Your task to perform on an android device: Play the new Selena Gomez video on YouTube Image 0: 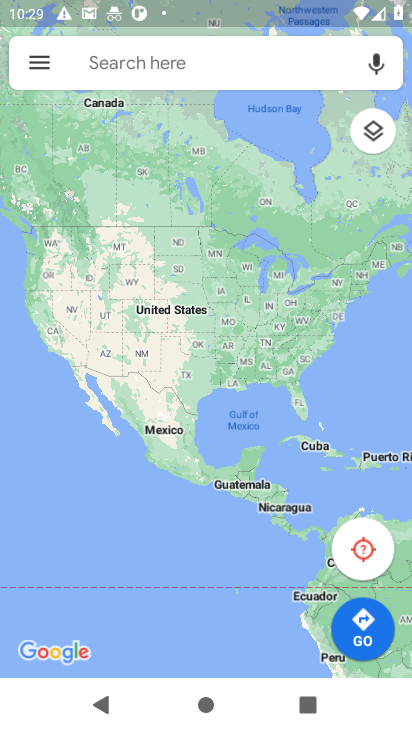
Step 0: press home button
Your task to perform on an android device: Play the new Selena Gomez video on YouTube Image 1: 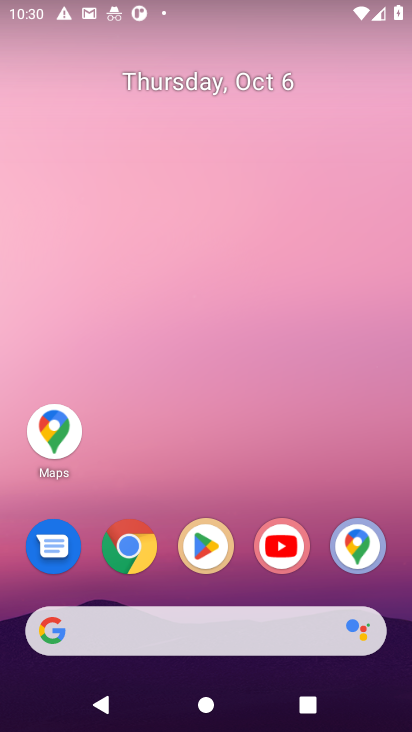
Step 1: click (282, 544)
Your task to perform on an android device: Play the new Selena Gomez video on YouTube Image 2: 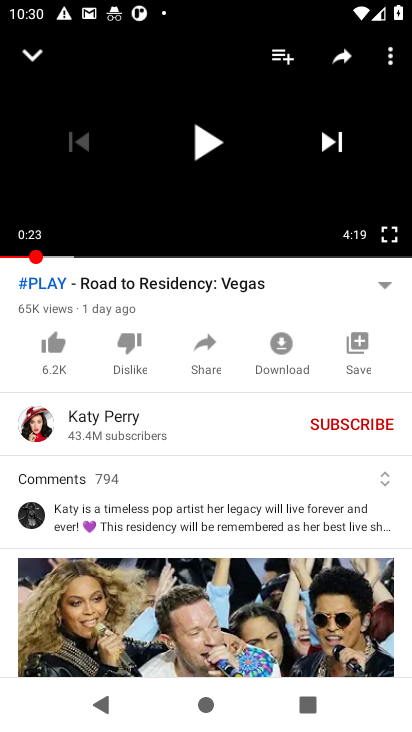
Step 2: click (28, 54)
Your task to perform on an android device: Play the new Selena Gomez video on YouTube Image 3: 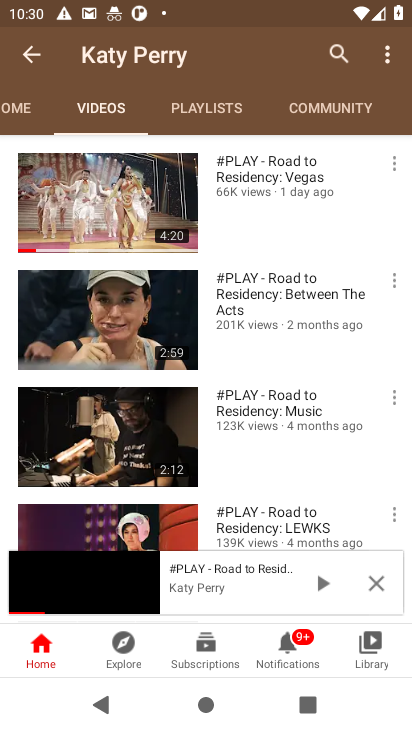
Step 3: click (31, 58)
Your task to perform on an android device: Play the new Selena Gomez video on YouTube Image 4: 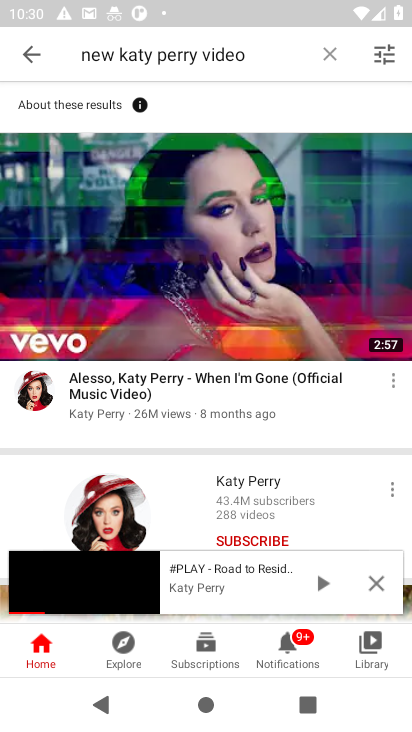
Step 4: click (329, 50)
Your task to perform on an android device: Play the new Selena Gomez video on YouTube Image 5: 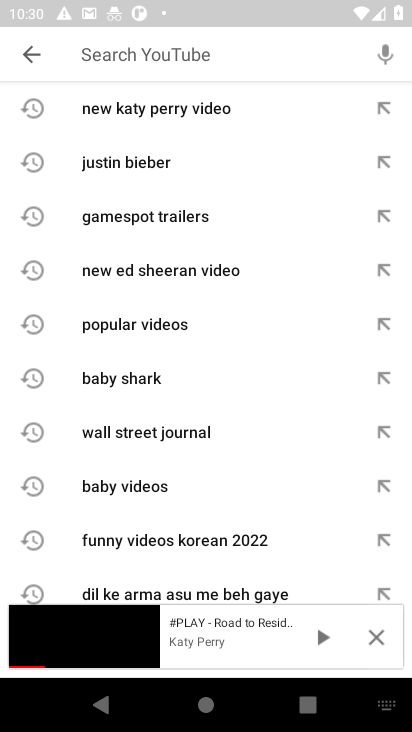
Step 5: type "selena Gomez"
Your task to perform on an android device: Play the new Selena Gomez video on YouTube Image 6: 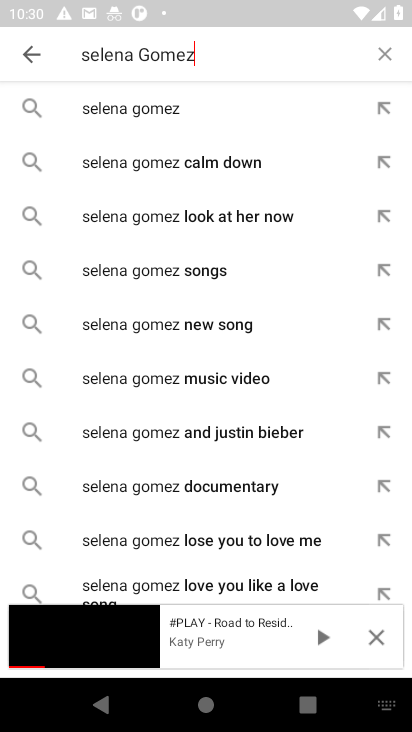
Step 6: click (115, 113)
Your task to perform on an android device: Play the new Selena Gomez video on YouTube Image 7: 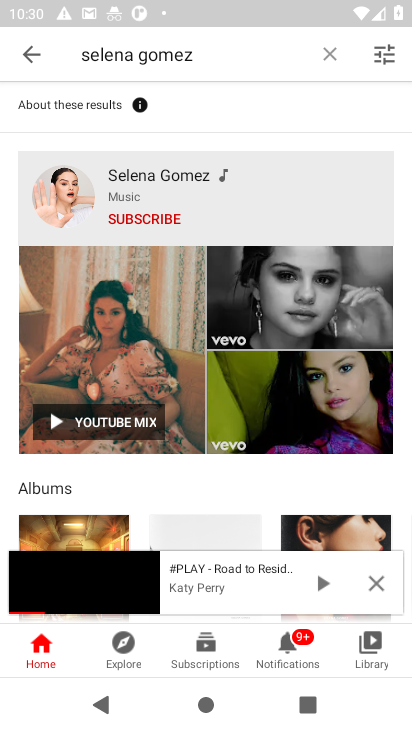
Step 7: click (135, 174)
Your task to perform on an android device: Play the new Selena Gomez video on YouTube Image 8: 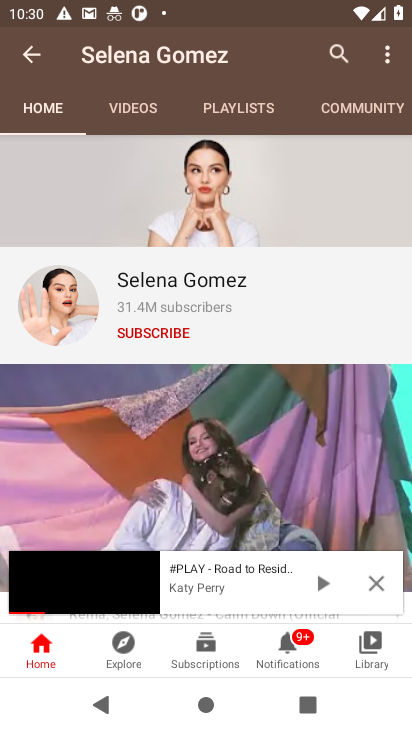
Step 8: click (131, 102)
Your task to perform on an android device: Play the new Selena Gomez video on YouTube Image 9: 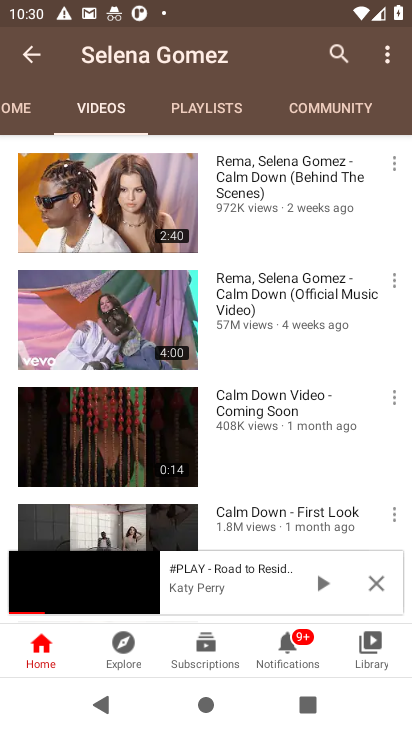
Step 9: click (117, 198)
Your task to perform on an android device: Play the new Selena Gomez video on YouTube Image 10: 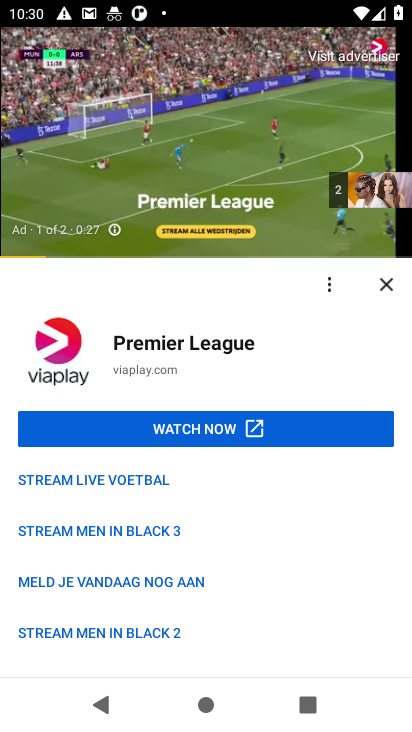
Step 10: click (385, 279)
Your task to perform on an android device: Play the new Selena Gomez video on YouTube Image 11: 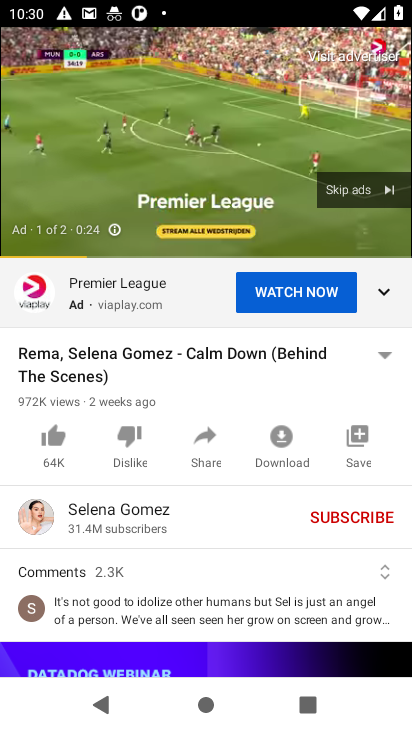
Step 11: click (360, 191)
Your task to perform on an android device: Play the new Selena Gomez video on YouTube Image 12: 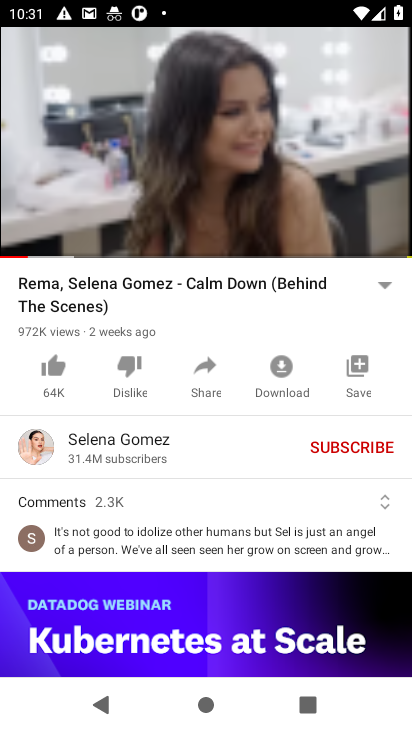
Step 12: click (200, 135)
Your task to perform on an android device: Play the new Selena Gomez video on YouTube Image 13: 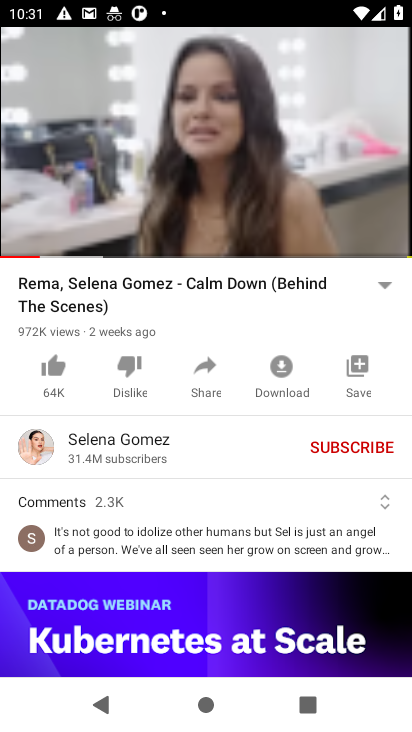
Step 13: click (200, 135)
Your task to perform on an android device: Play the new Selena Gomez video on YouTube Image 14: 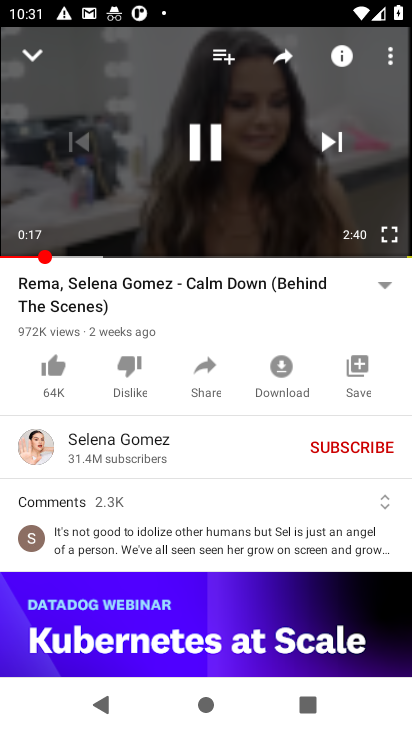
Step 14: click (200, 135)
Your task to perform on an android device: Play the new Selena Gomez video on YouTube Image 15: 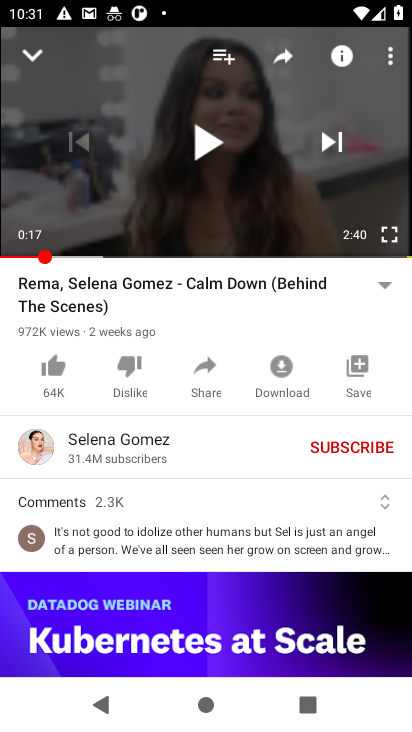
Step 15: task complete